Your task to perform on an android device: Open the phone app and click the voicemail tab. Image 0: 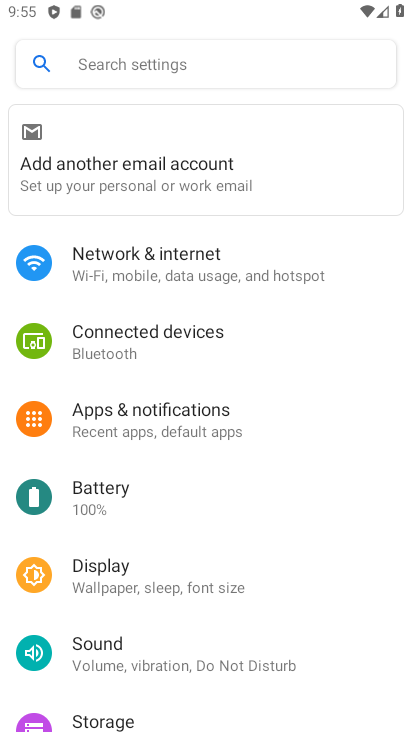
Step 0: press home button
Your task to perform on an android device: Open the phone app and click the voicemail tab. Image 1: 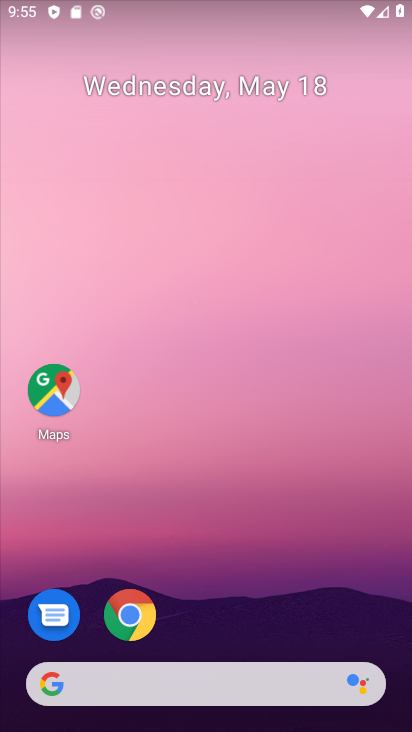
Step 1: drag from (174, 637) to (163, 262)
Your task to perform on an android device: Open the phone app and click the voicemail tab. Image 2: 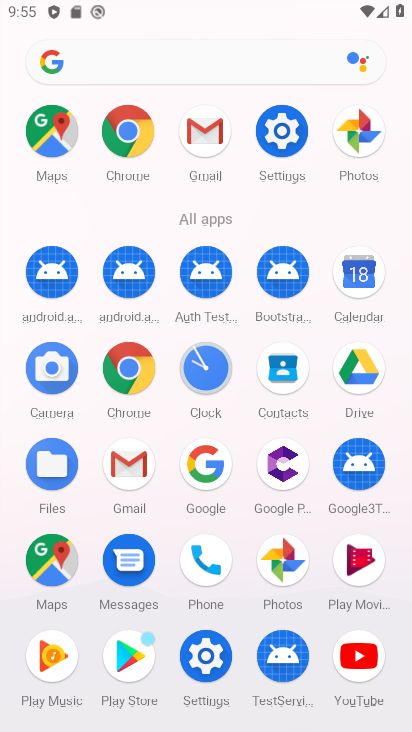
Step 2: click (205, 566)
Your task to perform on an android device: Open the phone app and click the voicemail tab. Image 3: 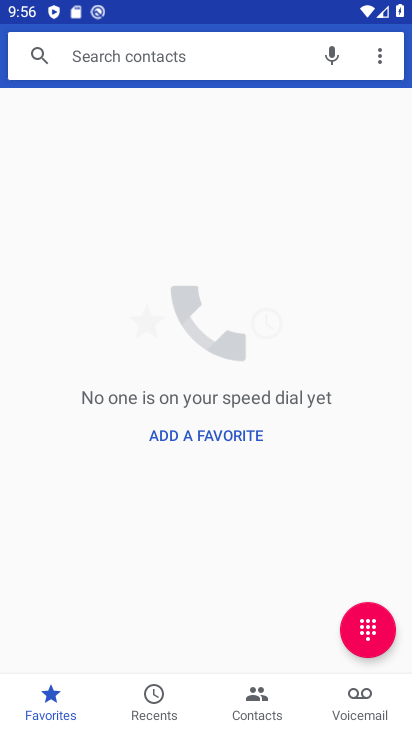
Step 3: click (359, 698)
Your task to perform on an android device: Open the phone app and click the voicemail tab. Image 4: 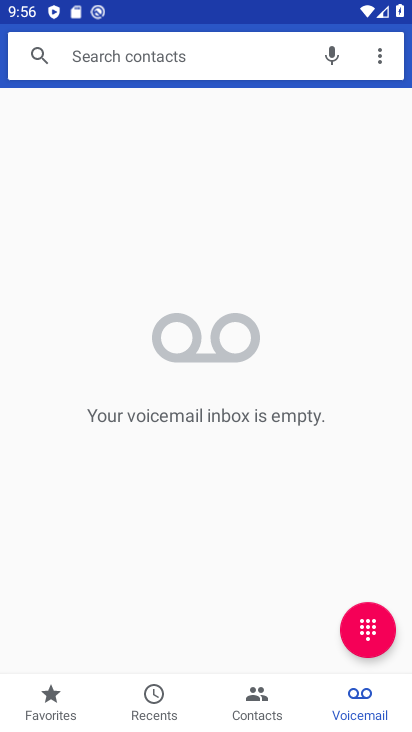
Step 4: task complete